Your task to perform on an android device: set the timer Image 0: 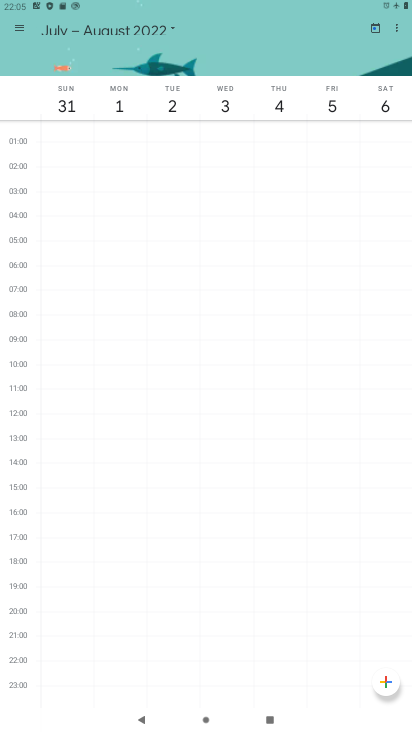
Step 0: press home button
Your task to perform on an android device: set the timer Image 1: 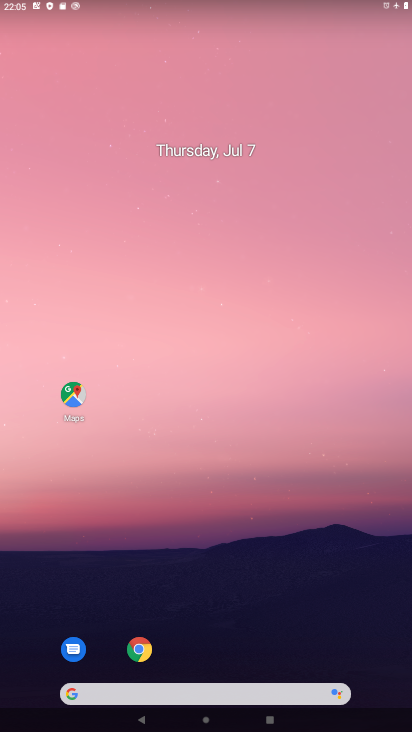
Step 1: drag from (235, 706) to (223, 304)
Your task to perform on an android device: set the timer Image 2: 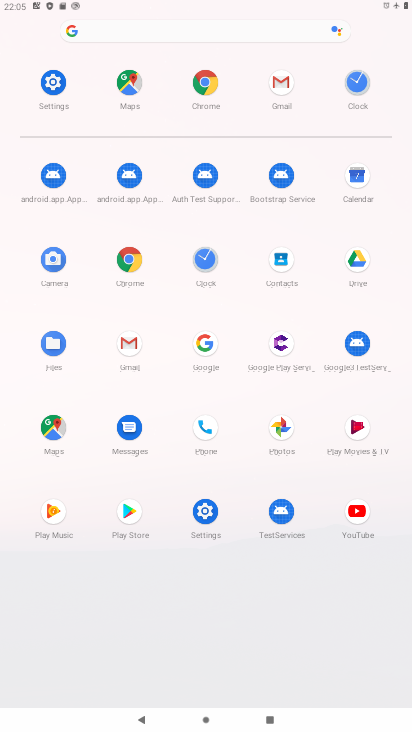
Step 2: click (357, 84)
Your task to perform on an android device: set the timer Image 3: 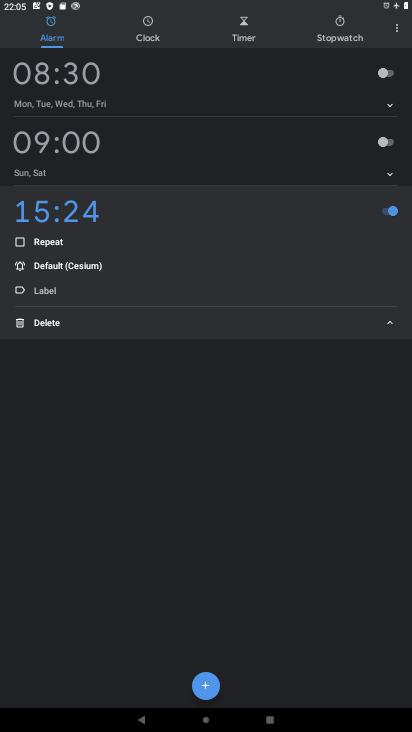
Step 3: click (239, 25)
Your task to perform on an android device: set the timer Image 4: 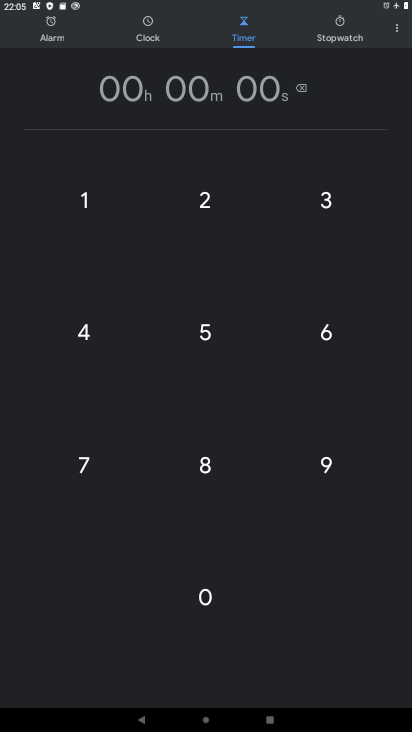
Step 4: click (207, 460)
Your task to perform on an android device: set the timer Image 5: 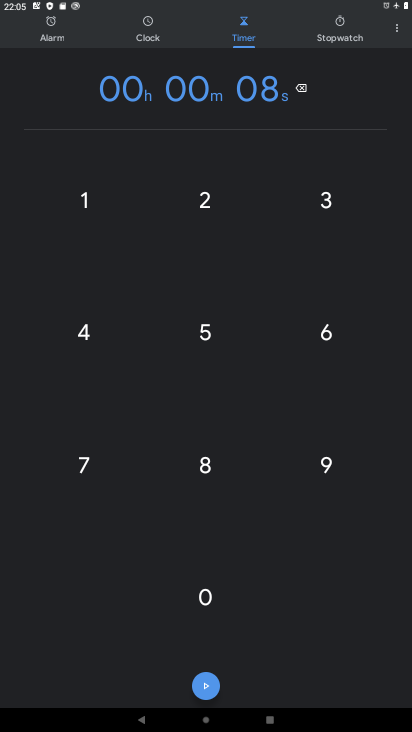
Step 5: click (82, 460)
Your task to perform on an android device: set the timer Image 6: 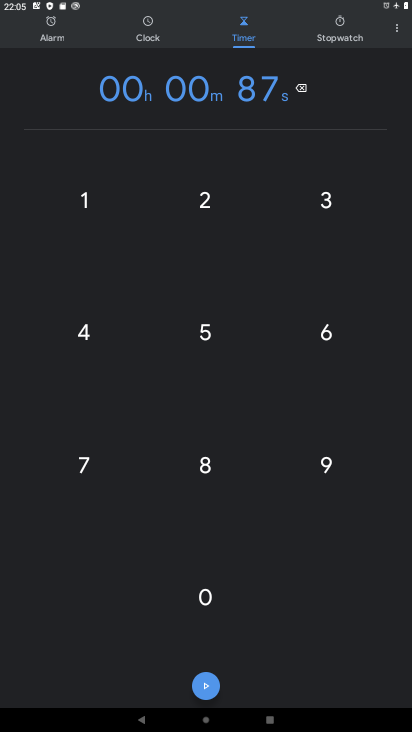
Step 6: click (81, 328)
Your task to perform on an android device: set the timer Image 7: 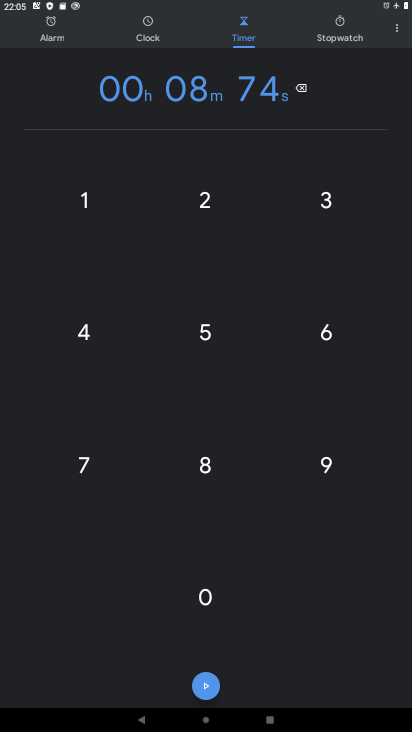
Step 7: click (206, 203)
Your task to perform on an android device: set the timer Image 8: 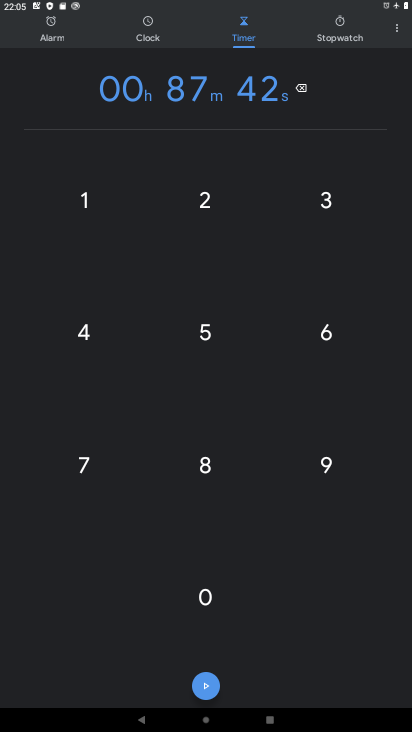
Step 8: click (329, 329)
Your task to perform on an android device: set the timer Image 9: 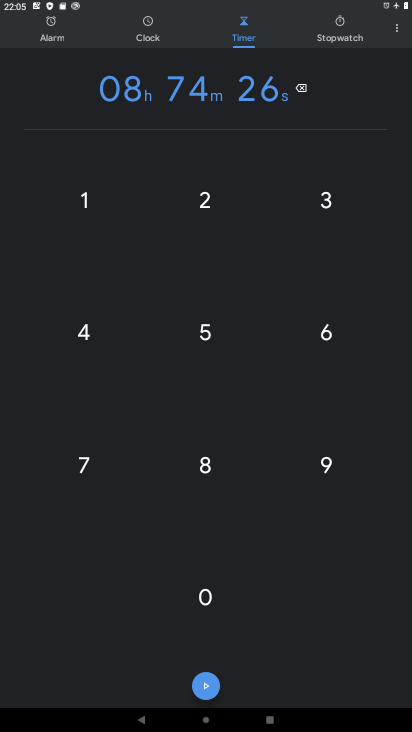
Step 9: click (203, 683)
Your task to perform on an android device: set the timer Image 10: 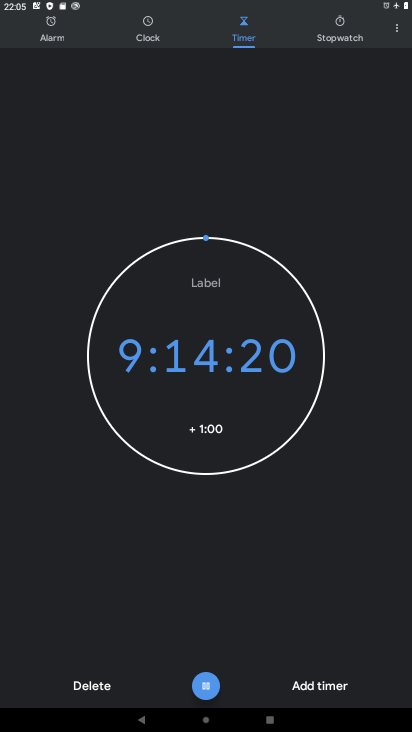
Step 10: task complete